Your task to perform on an android device: turn on sleep mode Image 0: 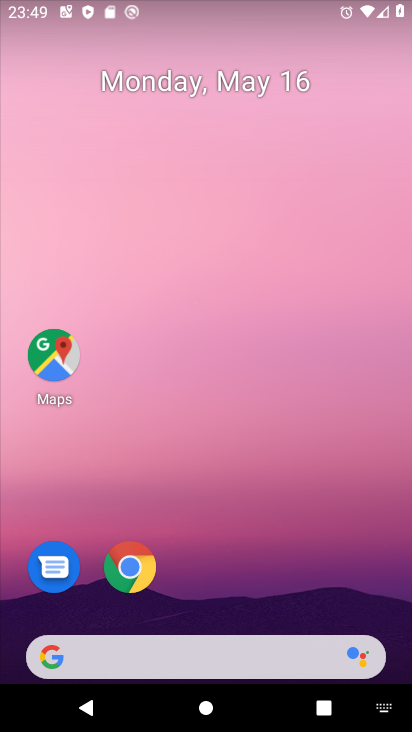
Step 0: drag from (250, 485) to (135, 83)
Your task to perform on an android device: turn on sleep mode Image 1: 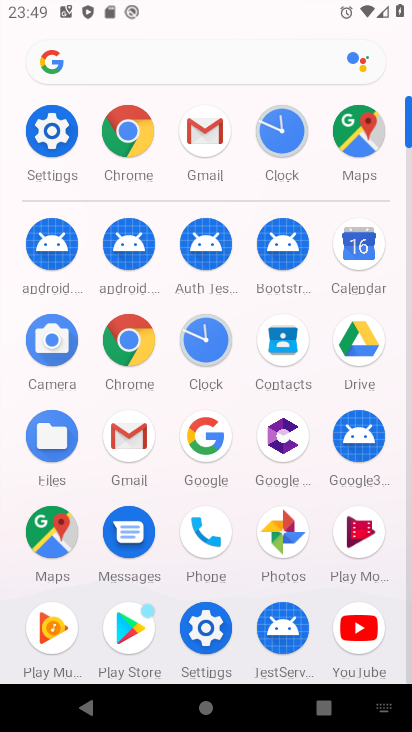
Step 1: click (47, 131)
Your task to perform on an android device: turn on sleep mode Image 2: 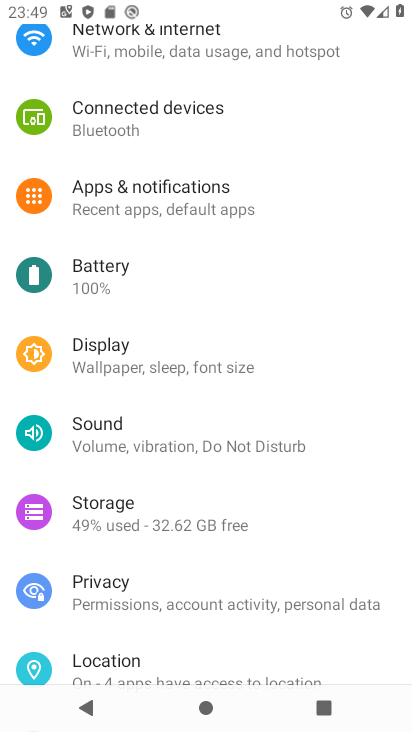
Step 2: click (111, 368)
Your task to perform on an android device: turn on sleep mode Image 3: 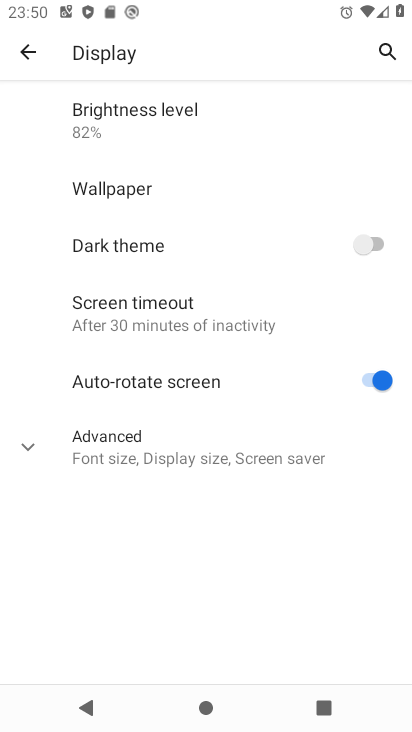
Step 3: task complete